Your task to perform on an android device: Turn off the flashlight Image 0: 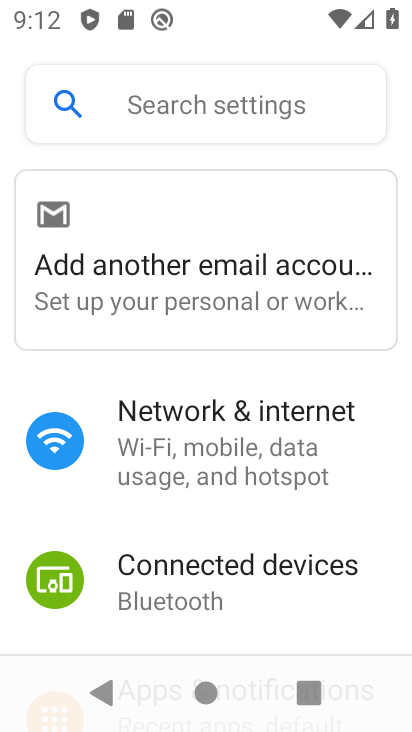
Step 0: click (287, 561)
Your task to perform on an android device: Turn off the flashlight Image 1: 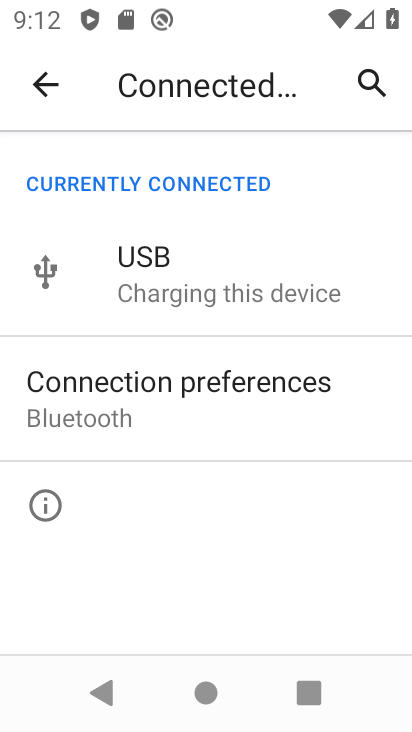
Step 1: task complete